Your task to perform on an android device: turn on airplane mode Image 0: 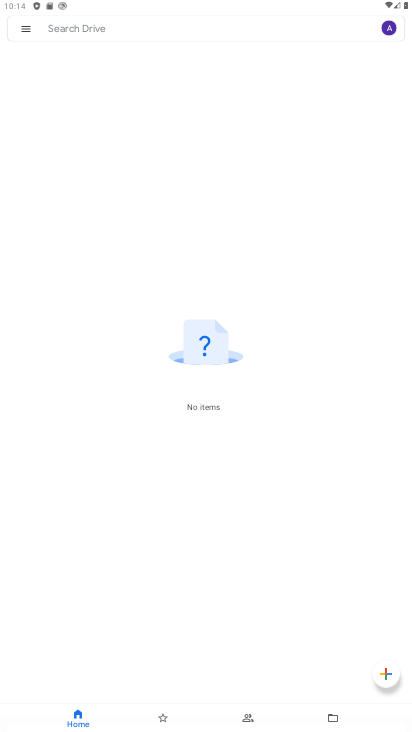
Step 0: press home button
Your task to perform on an android device: turn on airplane mode Image 1: 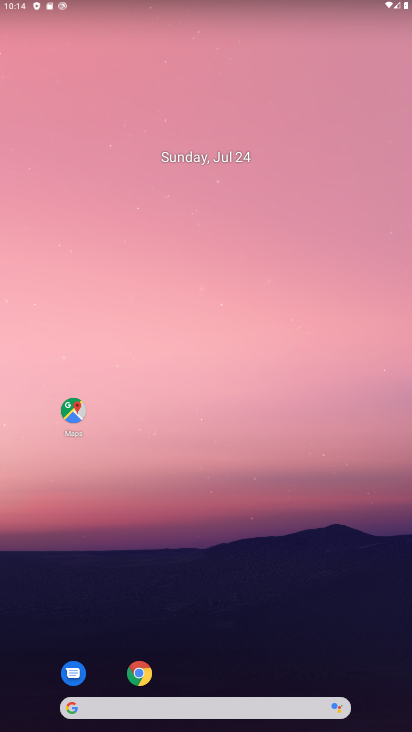
Step 1: drag from (309, 1) to (279, 257)
Your task to perform on an android device: turn on airplane mode Image 2: 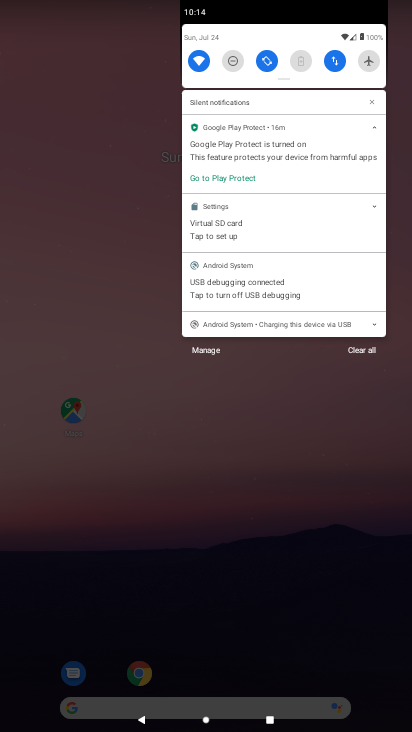
Step 2: click (369, 68)
Your task to perform on an android device: turn on airplane mode Image 3: 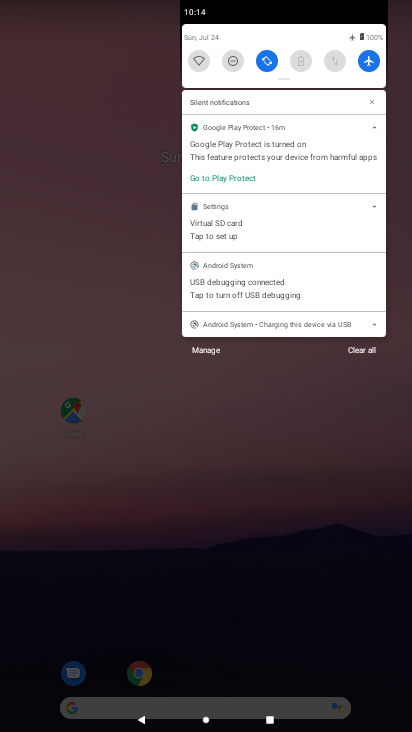
Step 3: task complete